Your task to perform on an android device: toggle improve location accuracy Image 0: 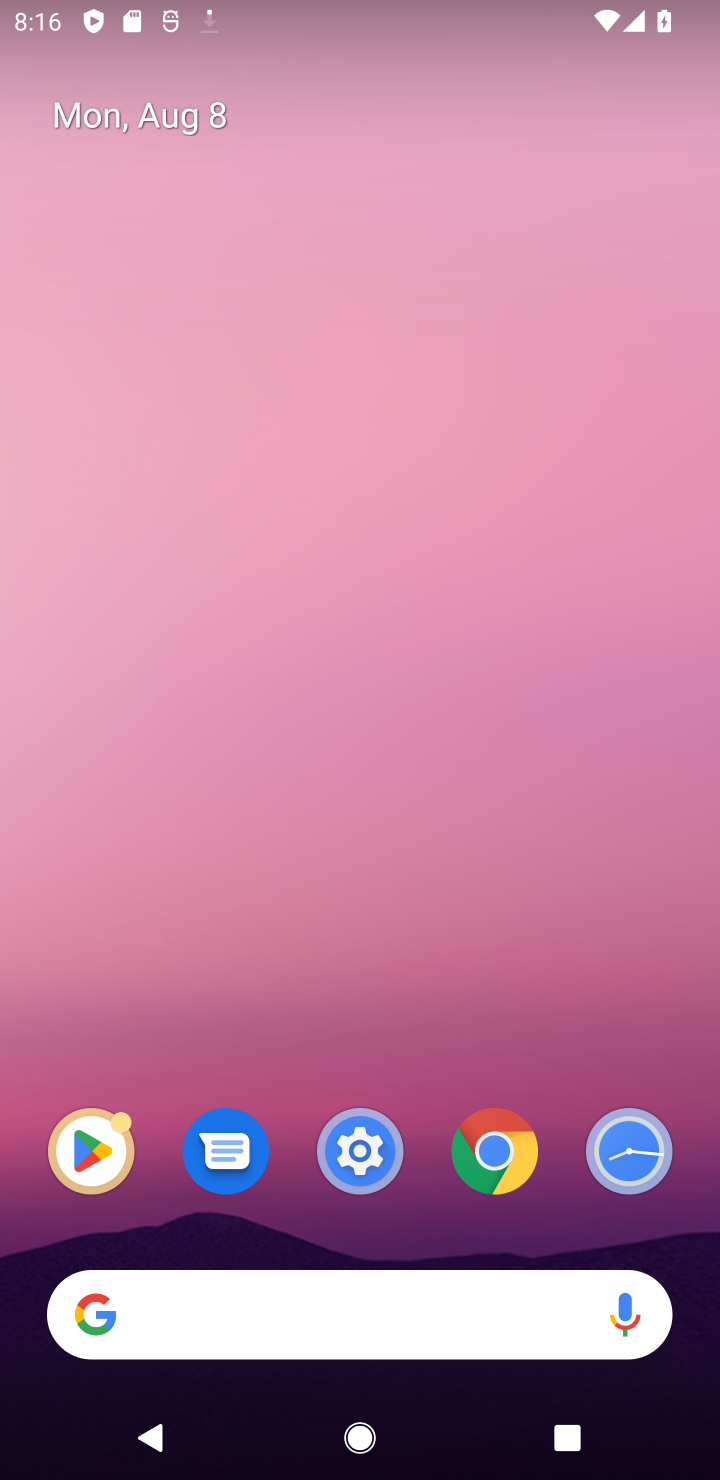
Step 0: drag from (574, 1057) to (372, 268)
Your task to perform on an android device: toggle improve location accuracy Image 1: 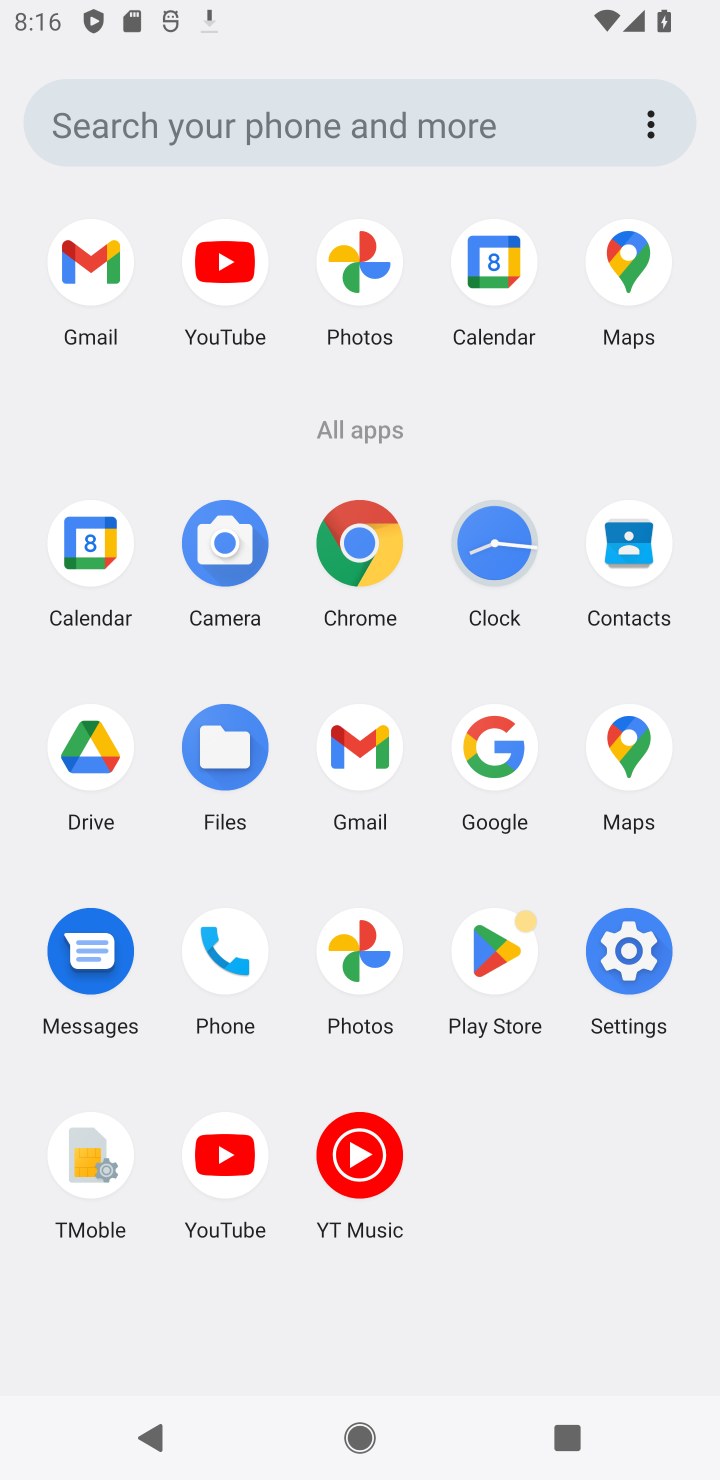
Step 1: click (644, 959)
Your task to perform on an android device: toggle improve location accuracy Image 2: 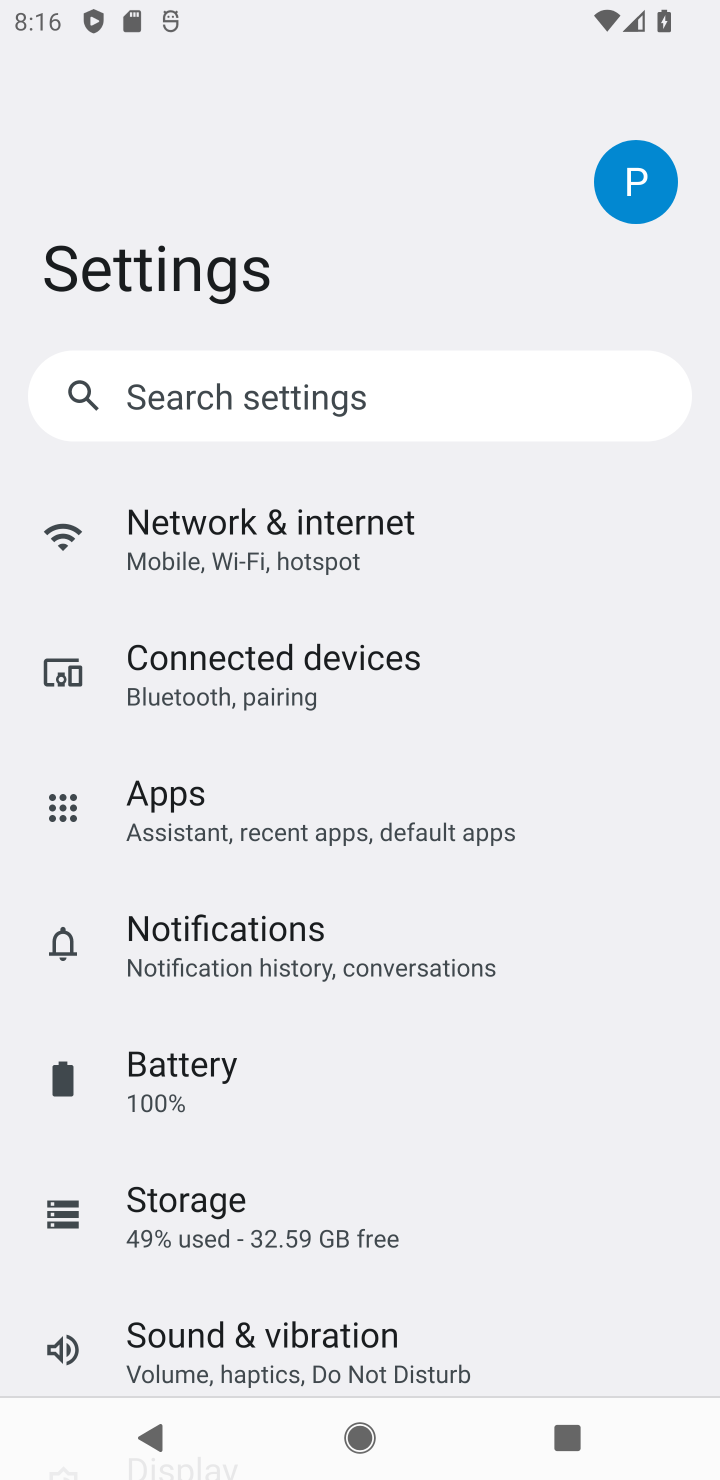
Step 2: drag from (484, 1206) to (362, 695)
Your task to perform on an android device: toggle improve location accuracy Image 3: 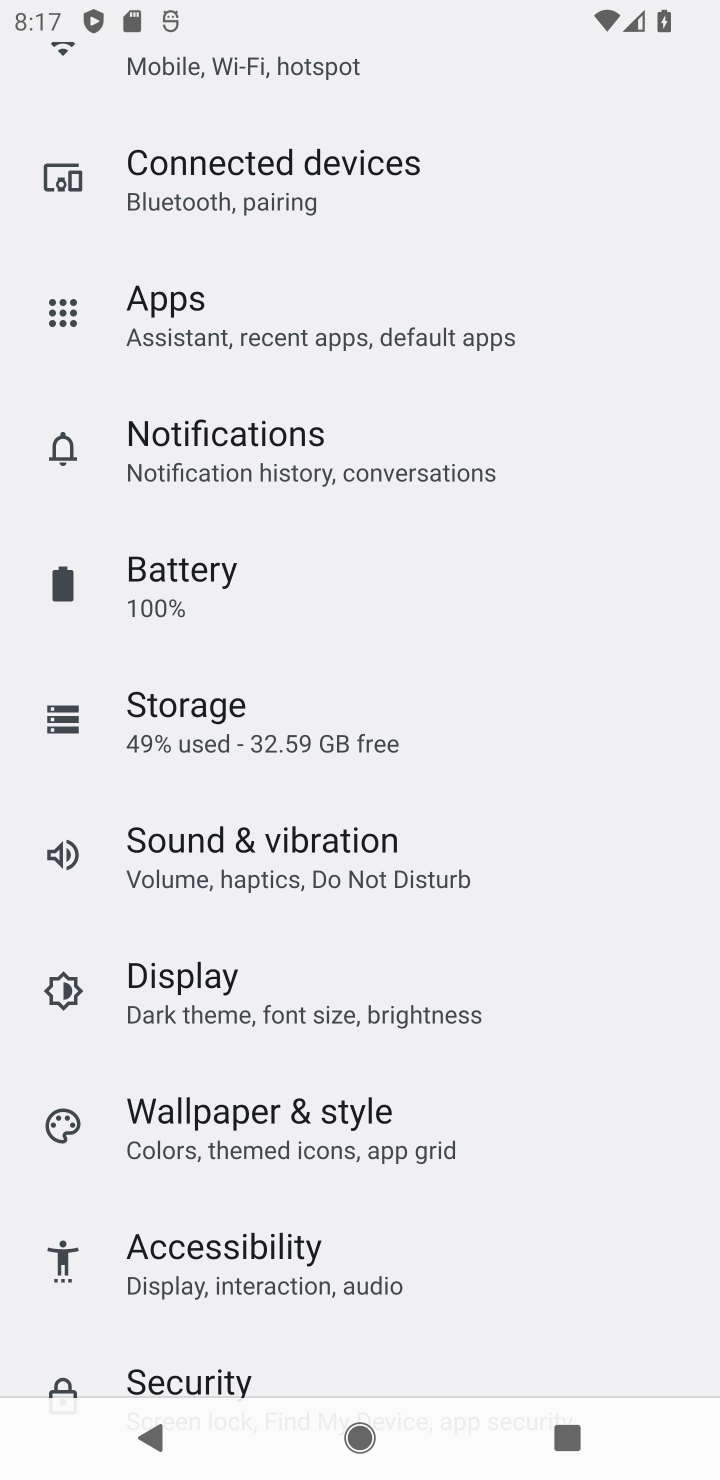
Step 3: drag from (465, 1315) to (302, 698)
Your task to perform on an android device: toggle improve location accuracy Image 4: 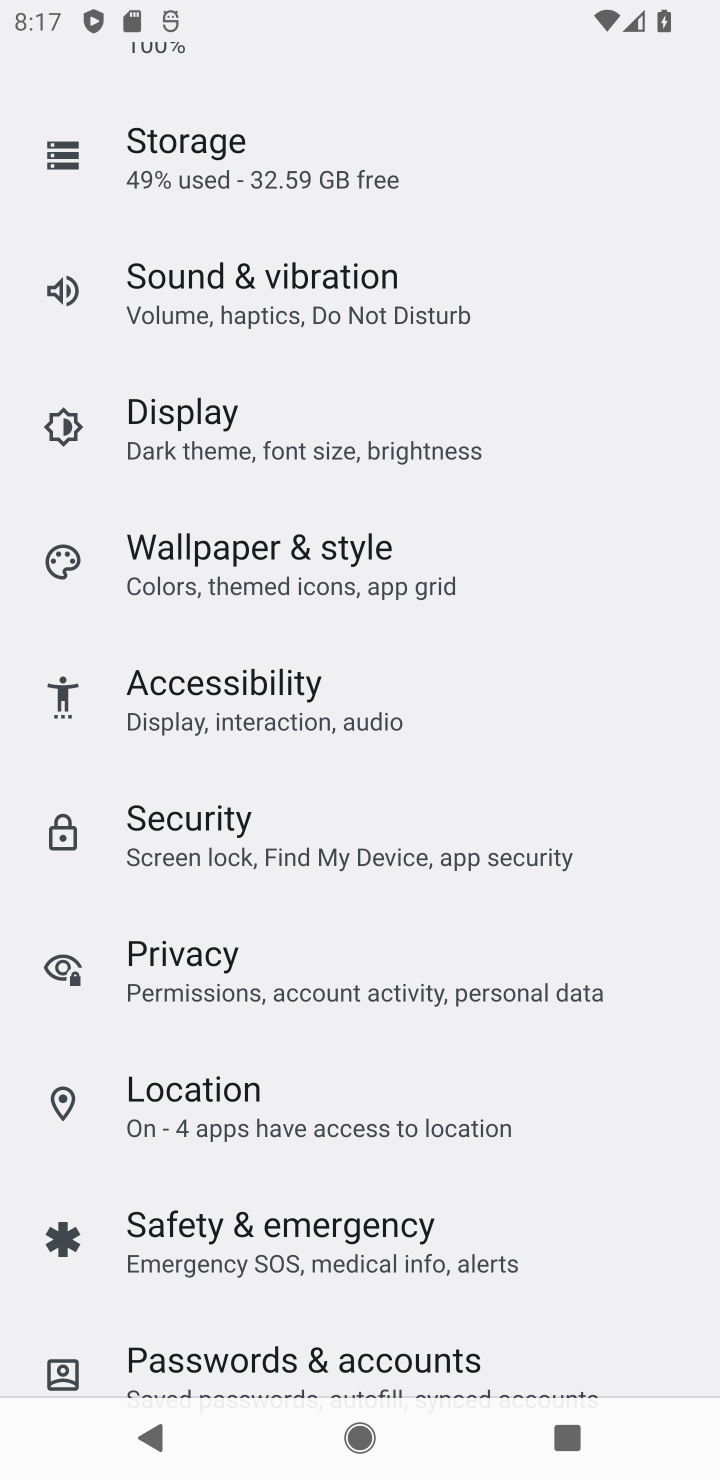
Step 4: click (327, 1119)
Your task to perform on an android device: toggle improve location accuracy Image 5: 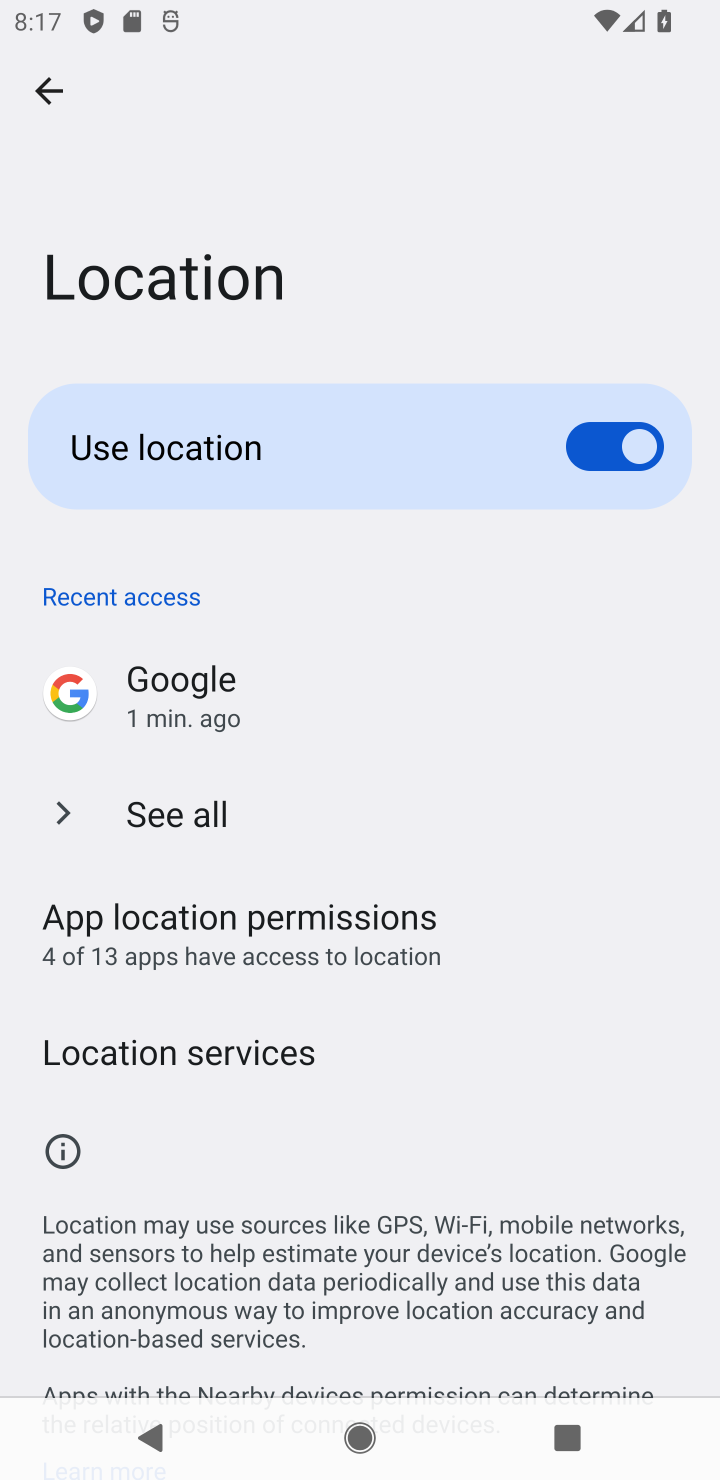
Step 5: click (271, 1054)
Your task to perform on an android device: toggle improve location accuracy Image 6: 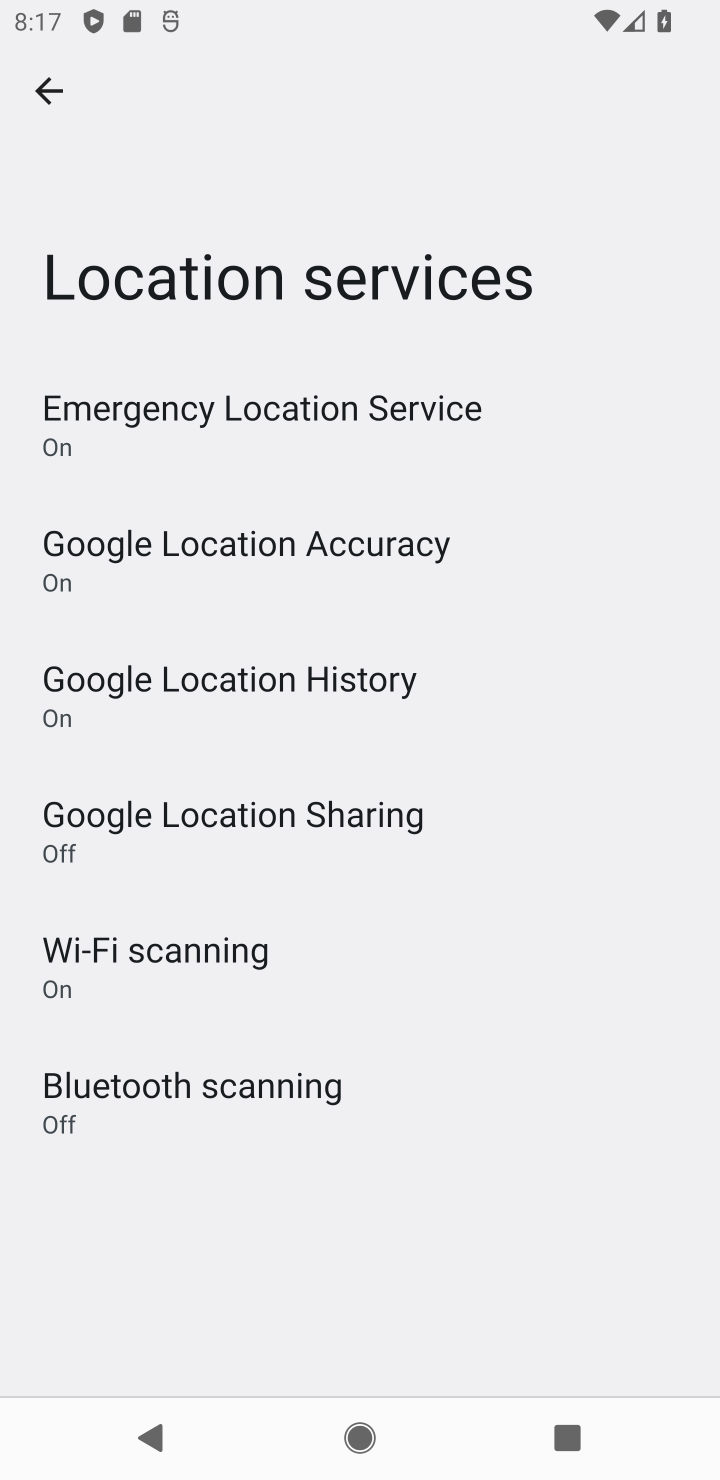
Step 6: click (484, 554)
Your task to perform on an android device: toggle improve location accuracy Image 7: 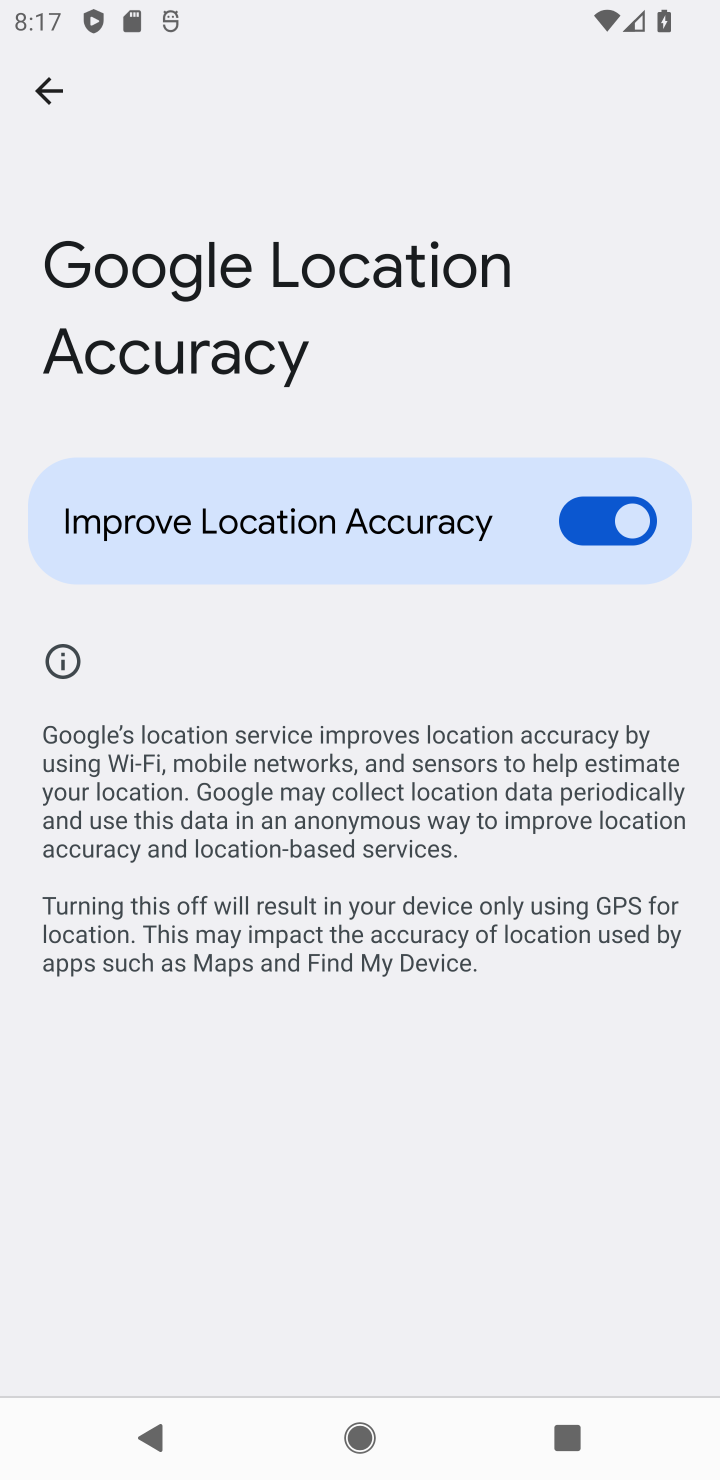
Step 7: click (607, 521)
Your task to perform on an android device: toggle improve location accuracy Image 8: 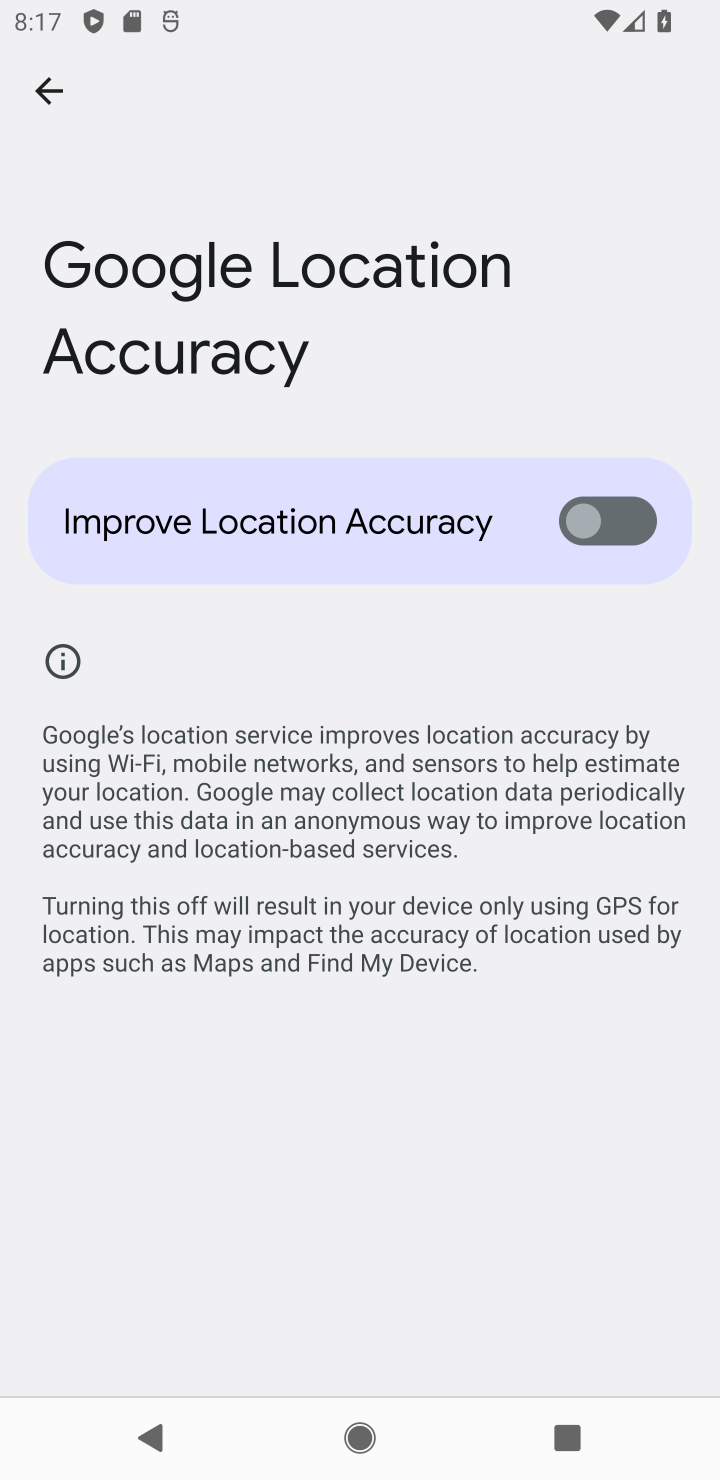
Step 8: task complete